Your task to perform on an android device: turn off priority inbox in the gmail app Image 0: 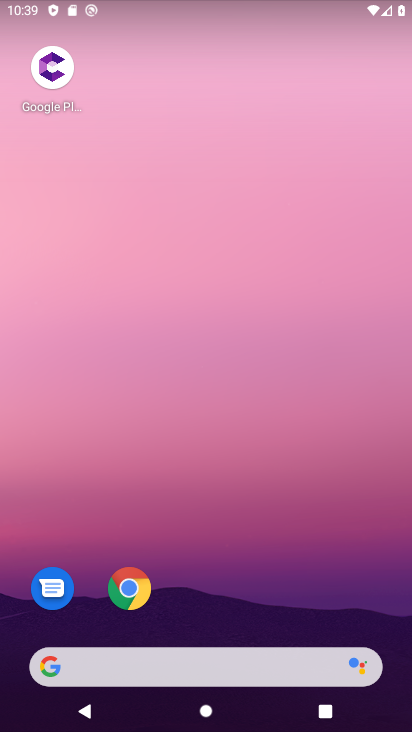
Step 0: drag from (212, 538) to (251, 131)
Your task to perform on an android device: turn off priority inbox in the gmail app Image 1: 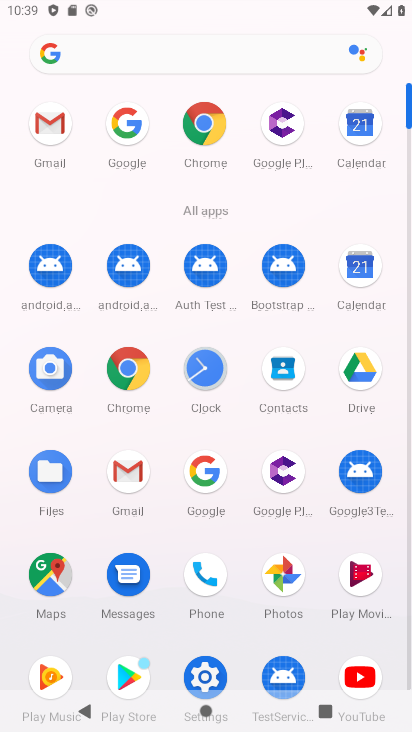
Step 1: click (135, 477)
Your task to perform on an android device: turn off priority inbox in the gmail app Image 2: 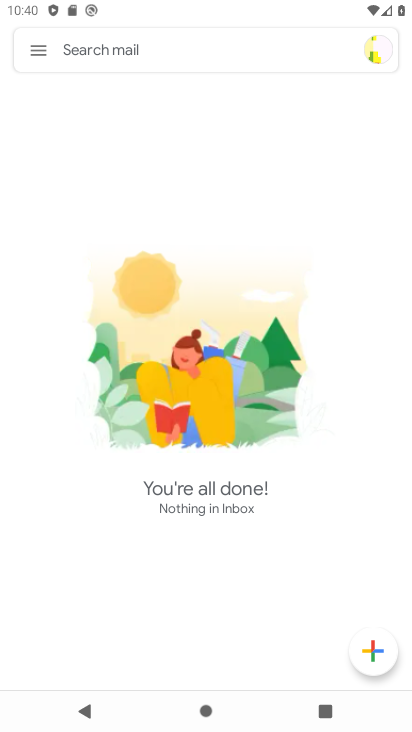
Step 2: click (40, 58)
Your task to perform on an android device: turn off priority inbox in the gmail app Image 3: 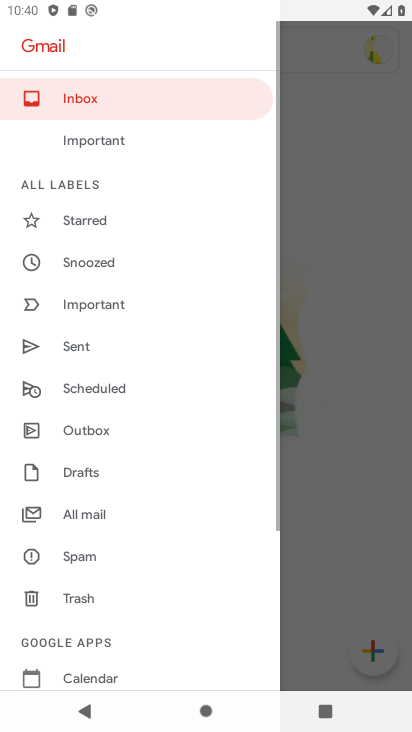
Step 3: drag from (122, 637) to (155, 375)
Your task to perform on an android device: turn off priority inbox in the gmail app Image 4: 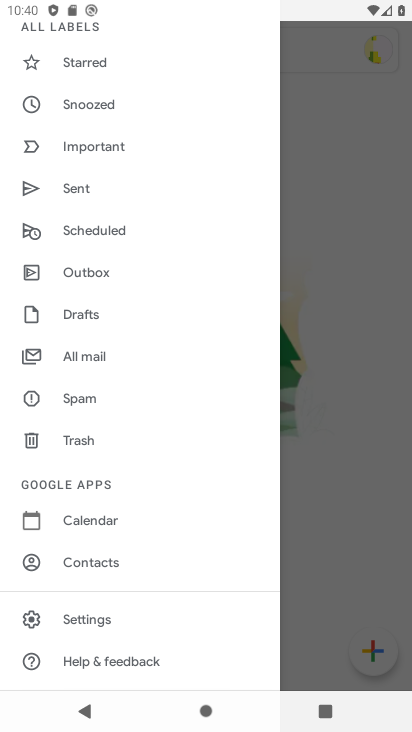
Step 4: click (105, 625)
Your task to perform on an android device: turn off priority inbox in the gmail app Image 5: 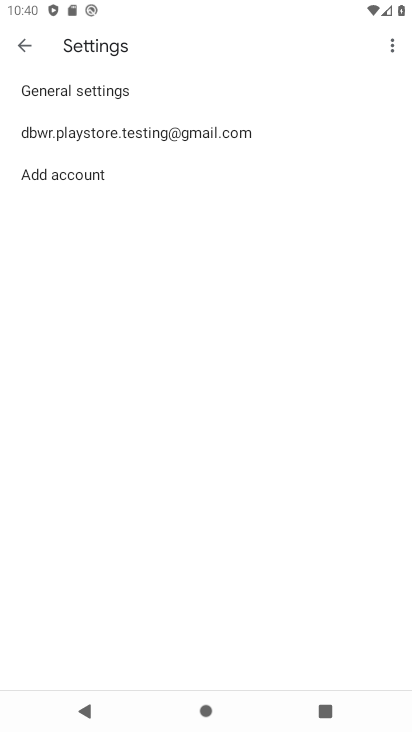
Step 5: click (174, 138)
Your task to perform on an android device: turn off priority inbox in the gmail app Image 6: 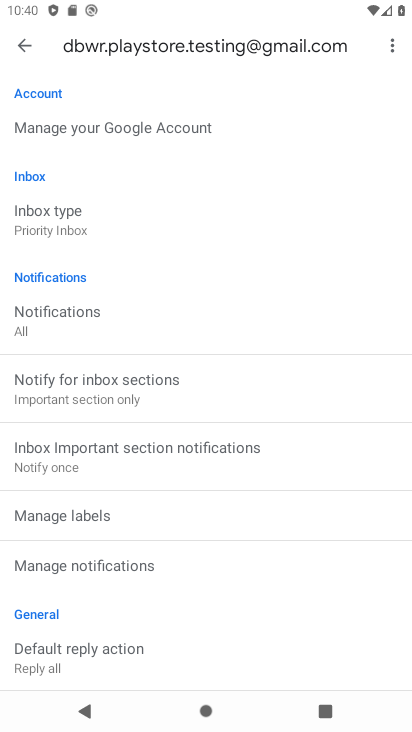
Step 6: click (104, 224)
Your task to perform on an android device: turn off priority inbox in the gmail app Image 7: 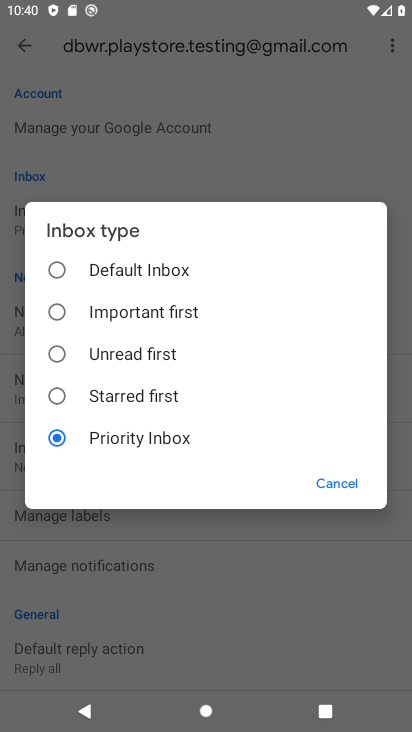
Step 7: click (107, 276)
Your task to perform on an android device: turn off priority inbox in the gmail app Image 8: 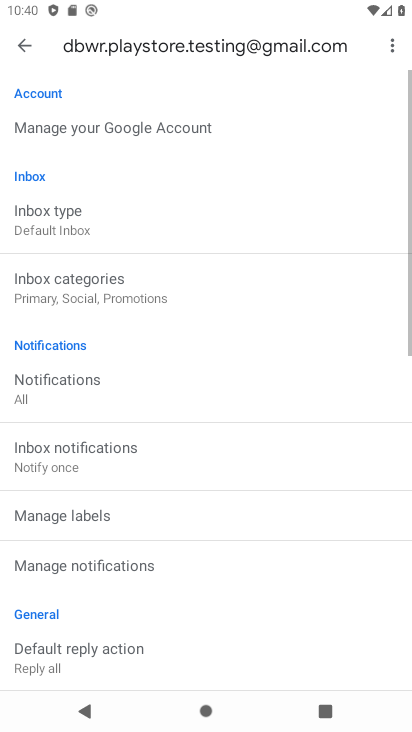
Step 8: task complete